Your task to perform on an android device: Go to location settings Image 0: 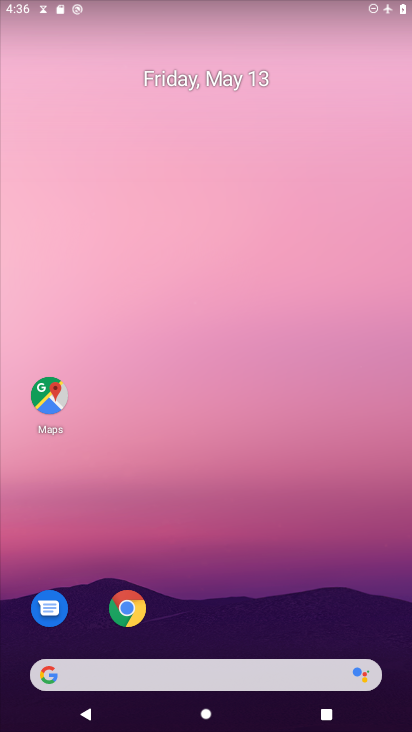
Step 0: drag from (280, 647) to (392, 6)
Your task to perform on an android device: Go to location settings Image 1: 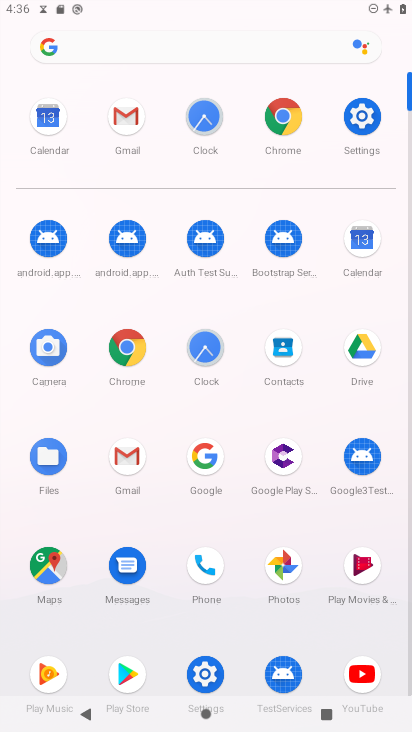
Step 1: click (365, 116)
Your task to perform on an android device: Go to location settings Image 2: 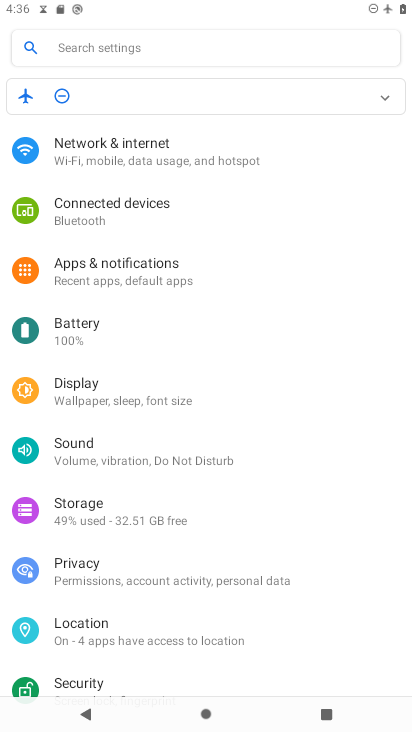
Step 2: click (129, 619)
Your task to perform on an android device: Go to location settings Image 3: 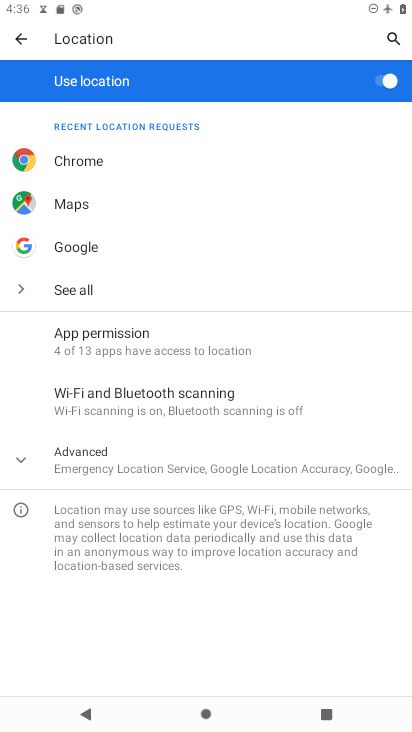
Step 3: task complete